Your task to perform on an android device: What's the weather today? Image 0: 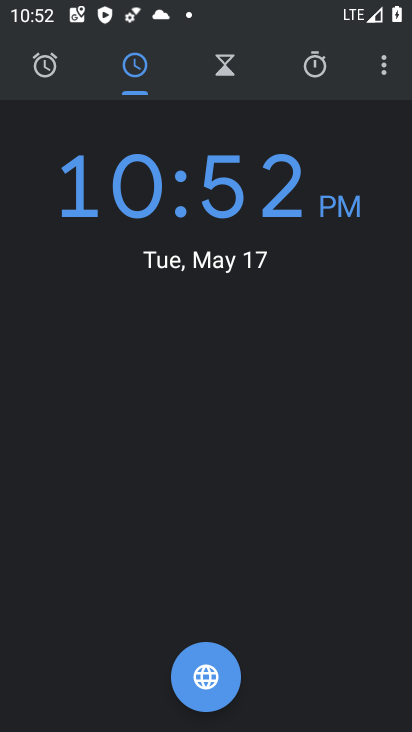
Step 0: press home button
Your task to perform on an android device: What's the weather today? Image 1: 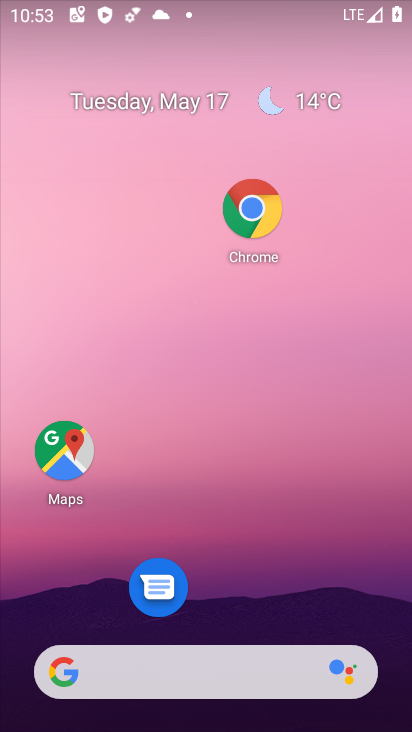
Step 1: click (317, 101)
Your task to perform on an android device: What's the weather today? Image 2: 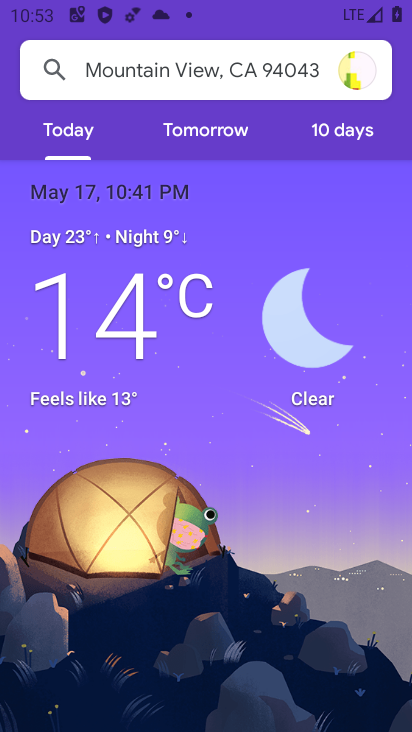
Step 2: task complete